Your task to perform on an android device: turn on javascript in the chrome app Image 0: 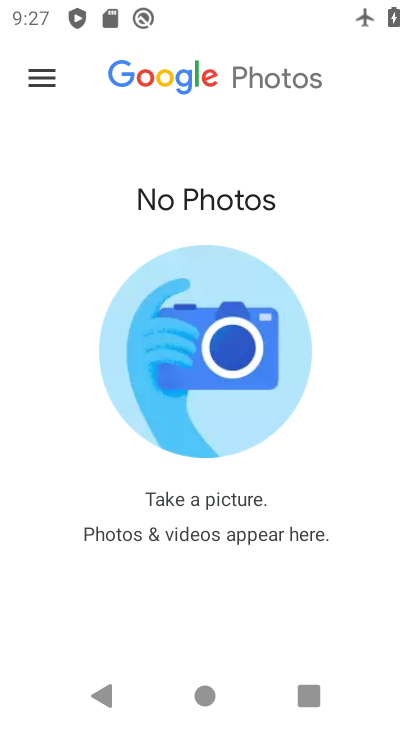
Step 0: press home button
Your task to perform on an android device: turn on javascript in the chrome app Image 1: 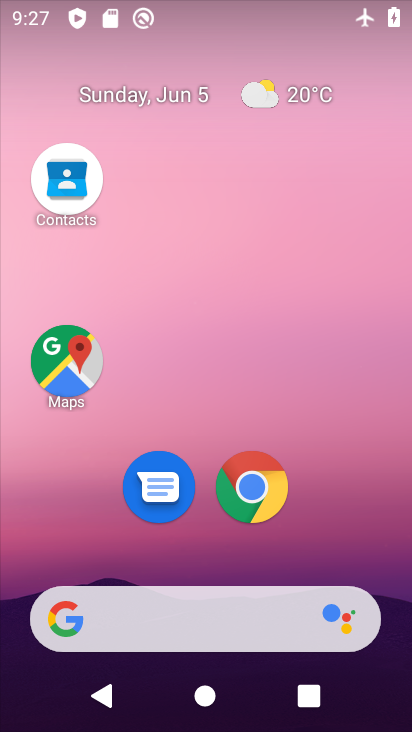
Step 1: click (291, 476)
Your task to perform on an android device: turn on javascript in the chrome app Image 2: 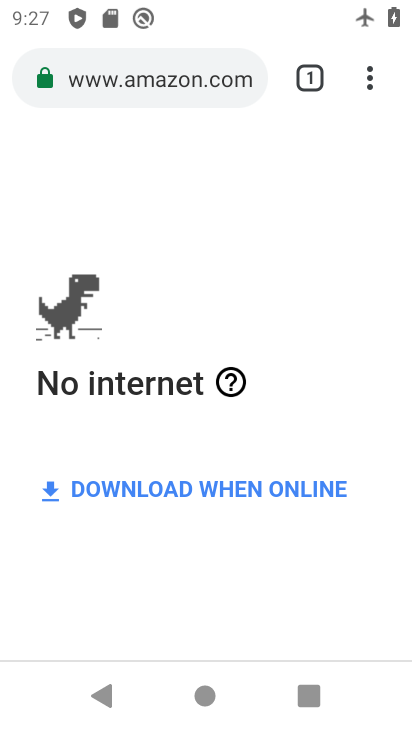
Step 2: click (373, 70)
Your task to perform on an android device: turn on javascript in the chrome app Image 3: 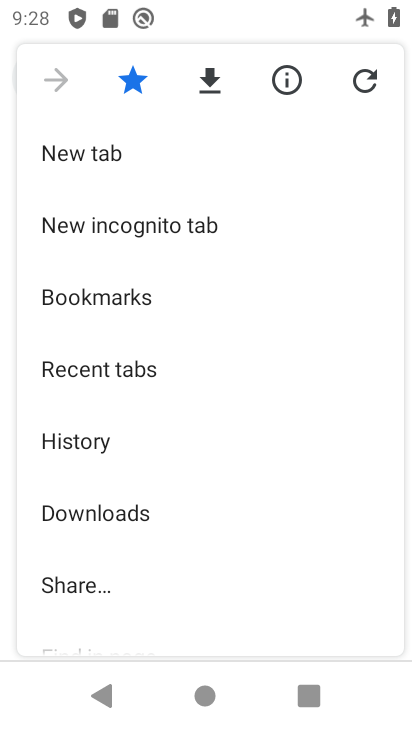
Step 3: drag from (131, 475) to (151, 318)
Your task to perform on an android device: turn on javascript in the chrome app Image 4: 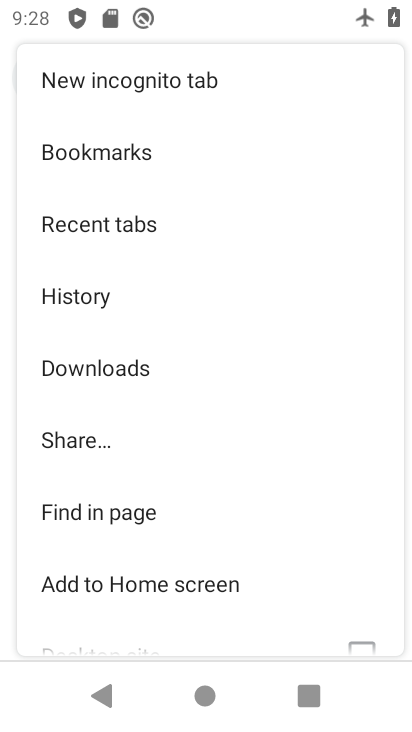
Step 4: drag from (170, 491) to (219, 216)
Your task to perform on an android device: turn on javascript in the chrome app Image 5: 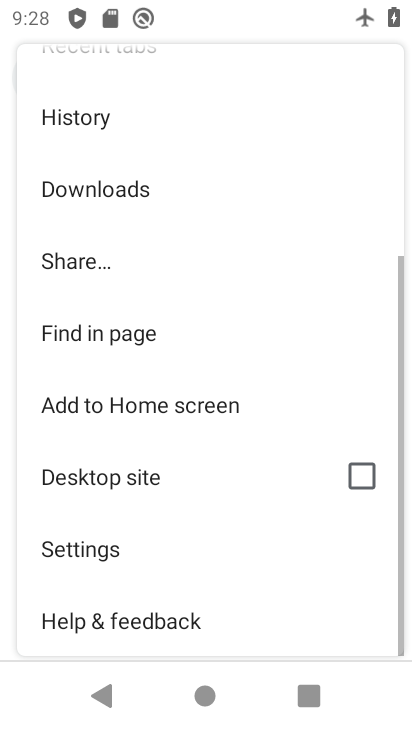
Step 5: click (123, 563)
Your task to perform on an android device: turn on javascript in the chrome app Image 6: 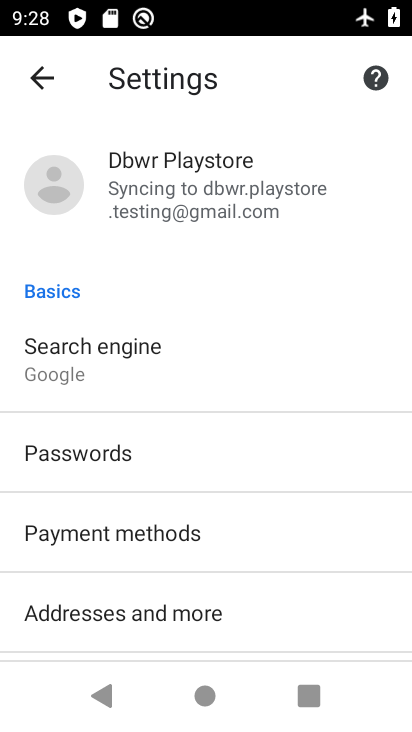
Step 6: drag from (118, 462) to (166, 235)
Your task to perform on an android device: turn on javascript in the chrome app Image 7: 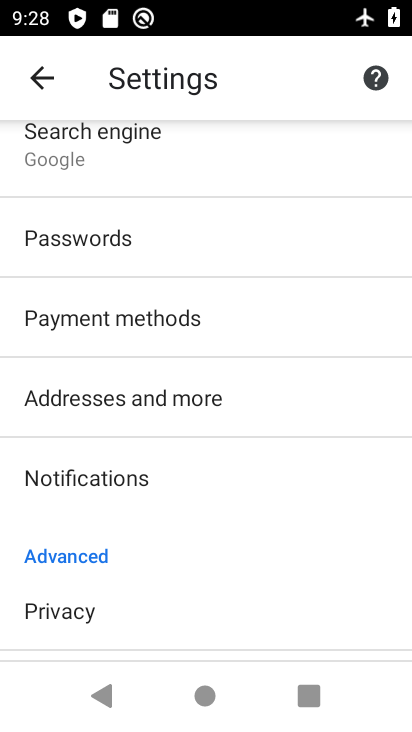
Step 7: click (170, 92)
Your task to perform on an android device: turn on javascript in the chrome app Image 8: 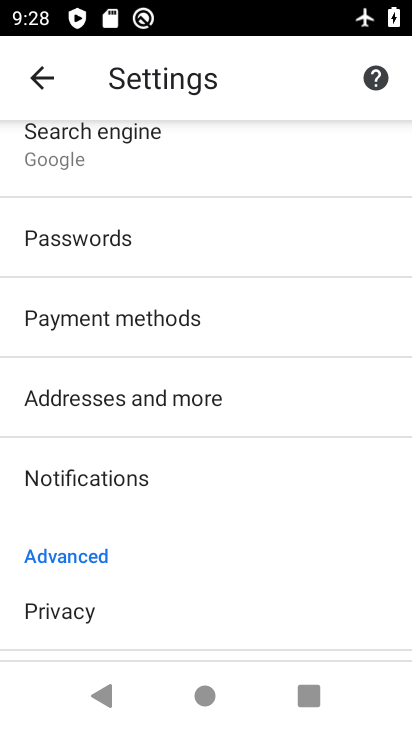
Step 8: drag from (208, 486) to (239, 257)
Your task to perform on an android device: turn on javascript in the chrome app Image 9: 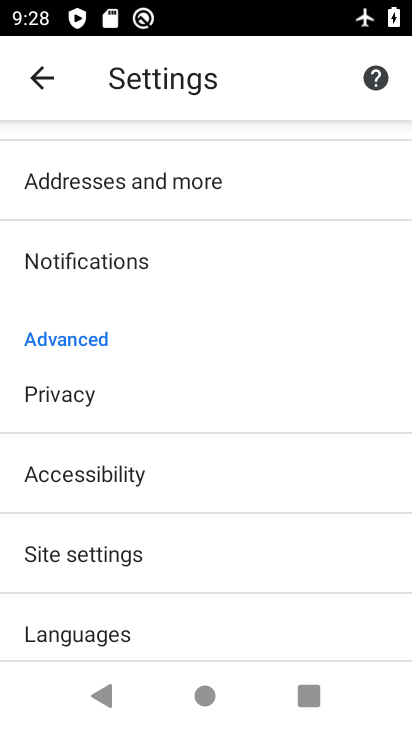
Step 9: drag from (199, 466) to (205, 404)
Your task to perform on an android device: turn on javascript in the chrome app Image 10: 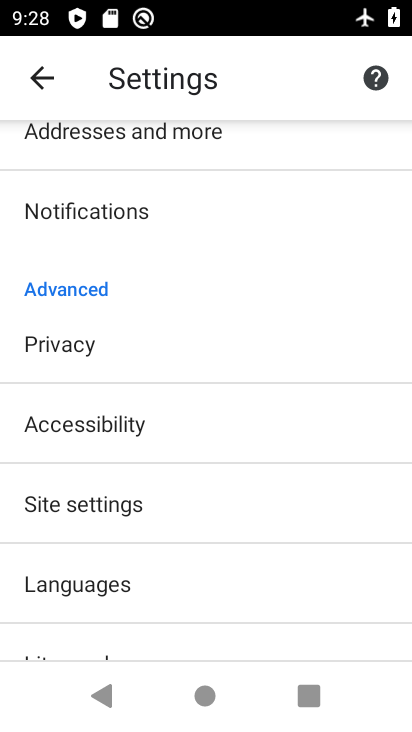
Step 10: click (207, 510)
Your task to perform on an android device: turn on javascript in the chrome app Image 11: 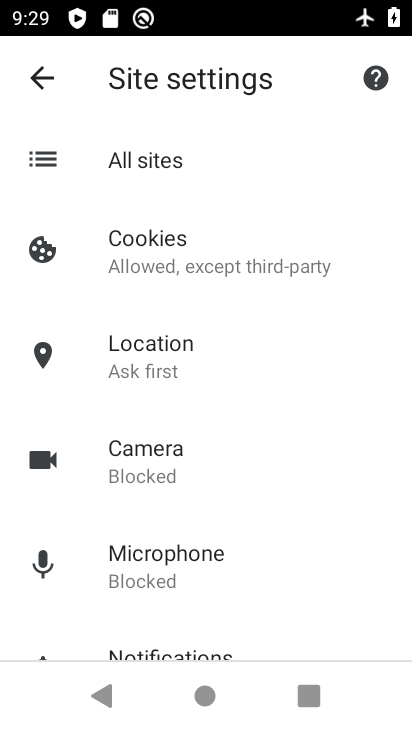
Step 11: drag from (211, 491) to (272, 276)
Your task to perform on an android device: turn on javascript in the chrome app Image 12: 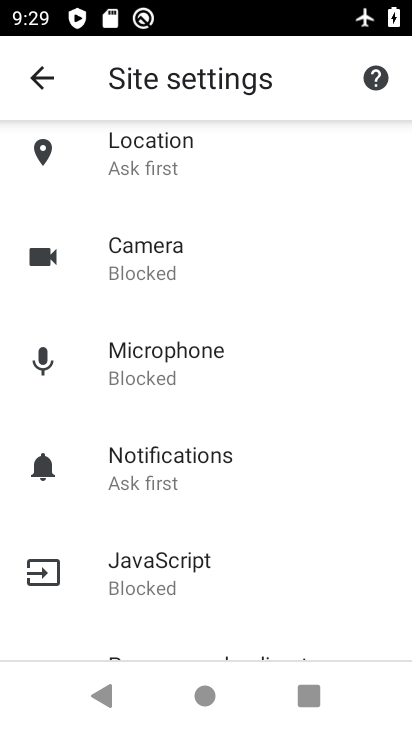
Step 12: click (204, 567)
Your task to perform on an android device: turn on javascript in the chrome app Image 13: 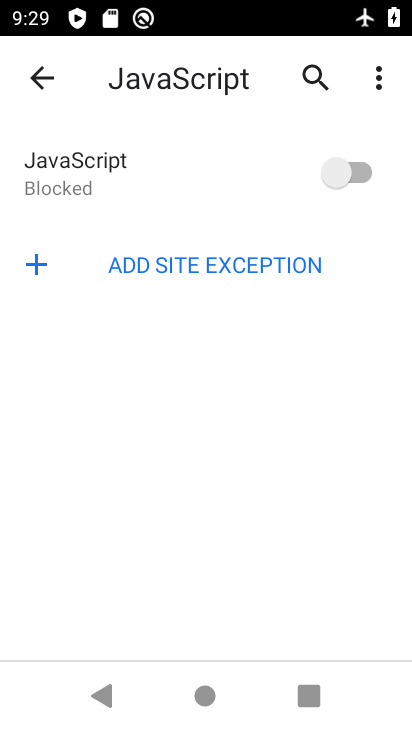
Step 13: click (350, 157)
Your task to perform on an android device: turn on javascript in the chrome app Image 14: 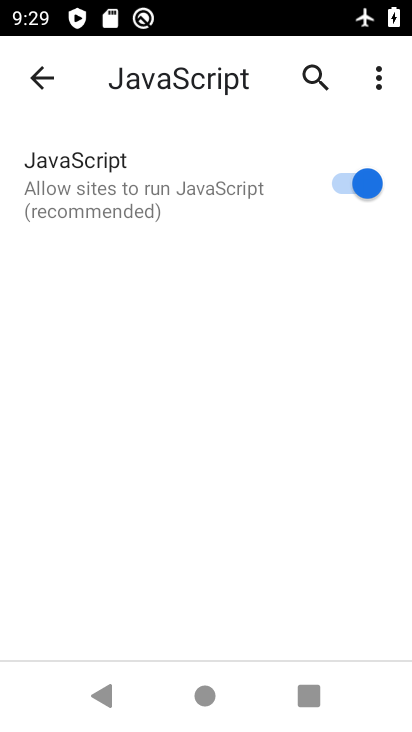
Step 14: task complete